Your task to perform on an android device: Open Yahoo.com Image 0: 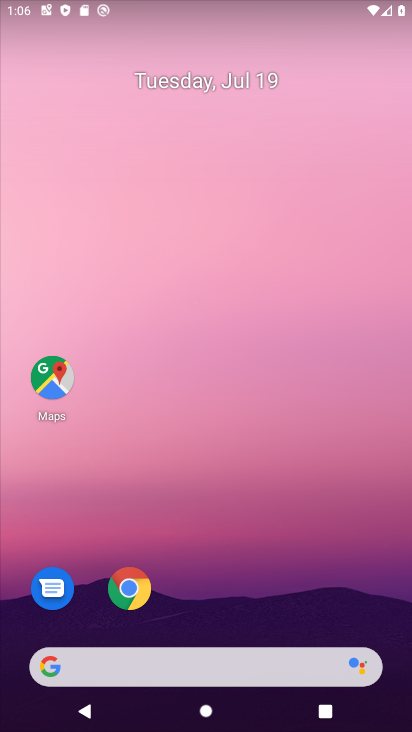
Step 0: click (77, 665)
Your task to perform on an android device: Open Yahoo.com Image 1: 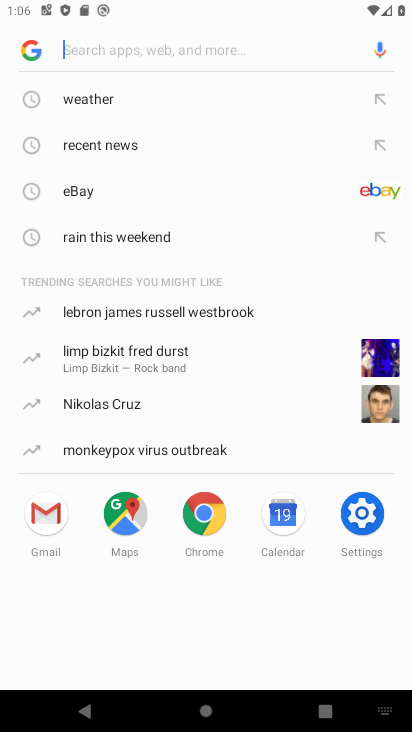
Step 1: type "Yahoo.com"
Your task to perform on an android device: Open Yahoo.com Image 2: 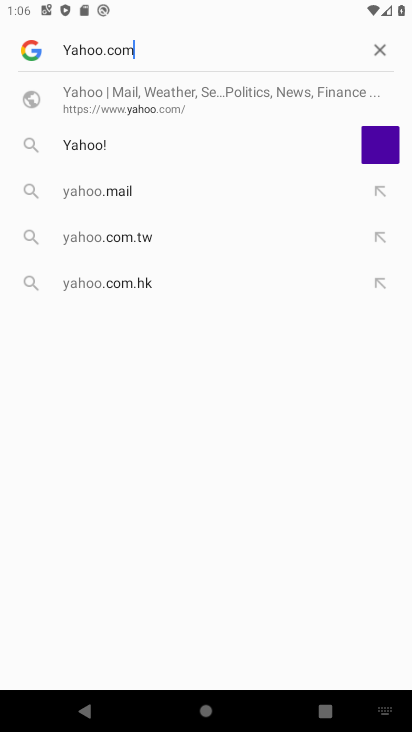
Step 2: type ""
Your task to perform on an android device: Open Yahoo.com Image 3: 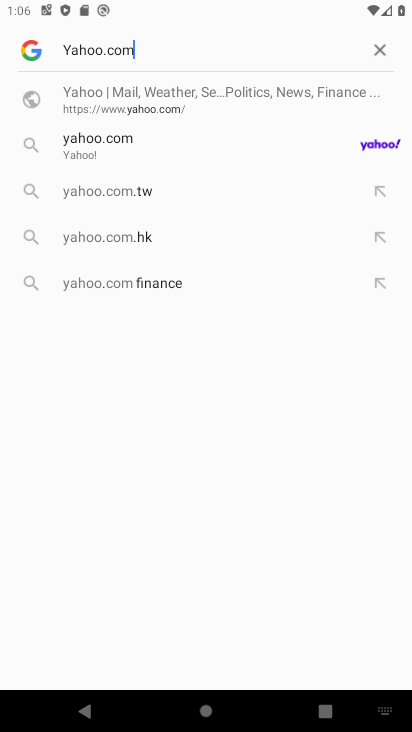
Step 3: click (74, 132)
Your task to perform on an android device: Open Yahoo.com Image 4: 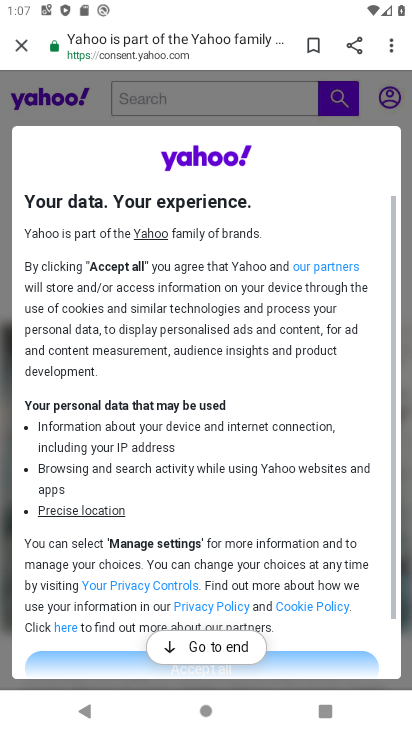
Step 4: task complete